Your task to perform on an android device: all mails in gmail Image 0: 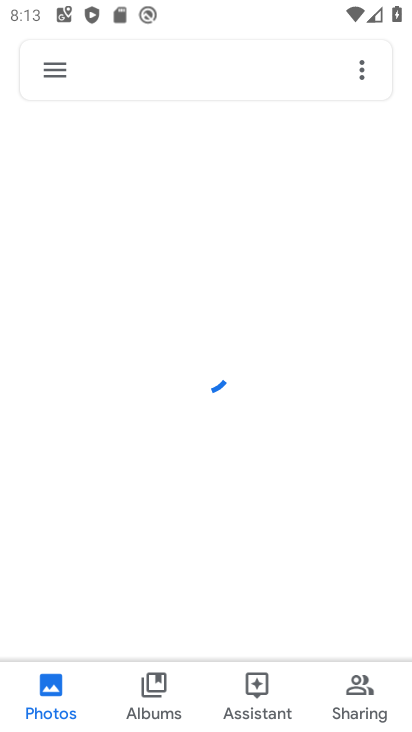
Step 0: press home button
Your task to perform on an android device: all mails in gmail Image 1: 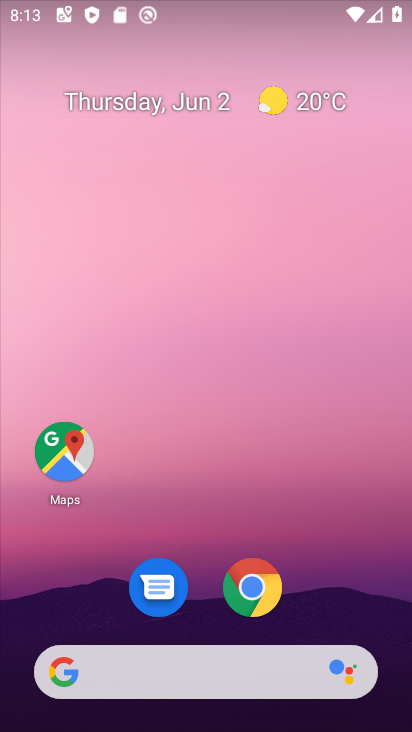
Step 1: drag from (204, 610) to (229, 122)
Your task to perform on an android device: all mails in gmail Image 2: 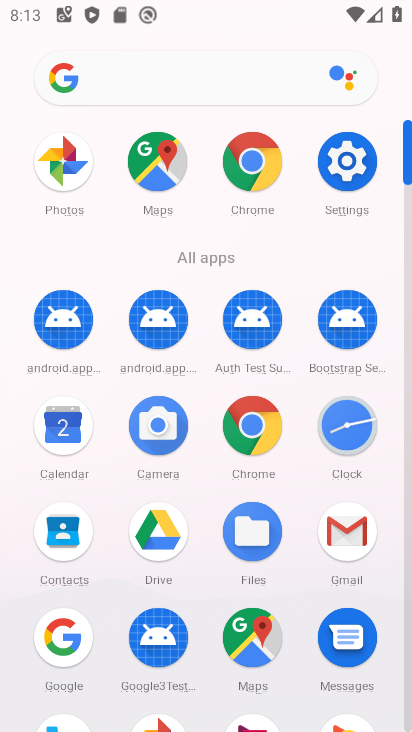
Step 2: click (338, 534)
Your task to perform on an android device: all mails in gmail Image 3: 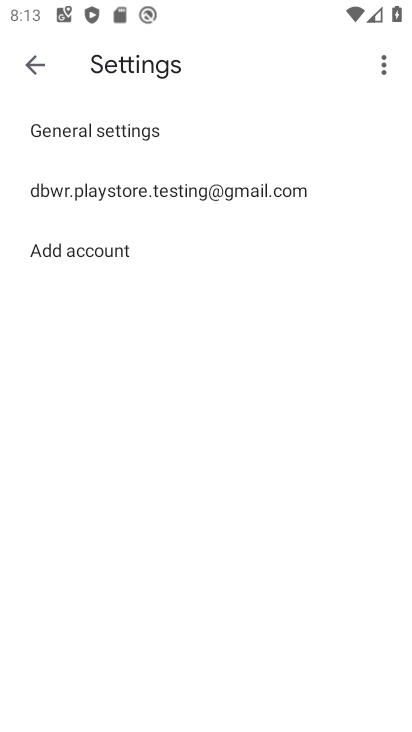
Step 3: click (42, 71)
Your task to perform on an android device: all mails in gmail Image 4: 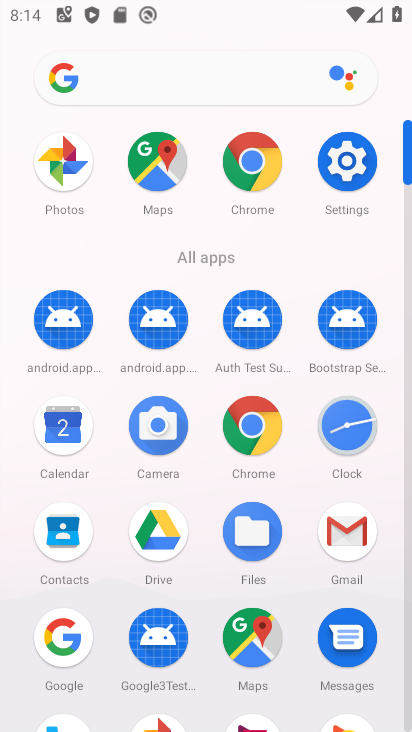
Step 4: click (337, 549)
Your task to perform on an android device: all mails in gmail Image 5: 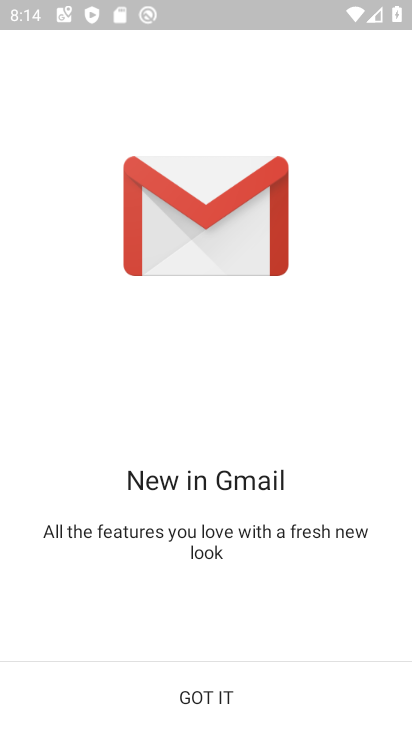
Step 5: click (192, 710)
Your task to perform on an android device: all mails in gmail Image 6: 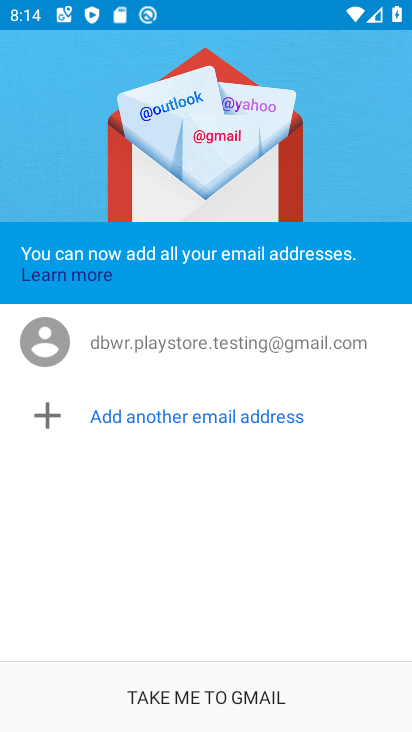
Step 6: click (192, 710)
Your task to perform on an android device: all mails in gmail Image 7: 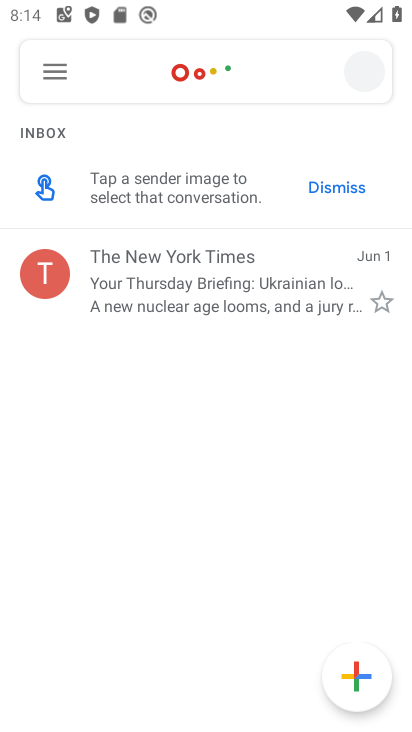
Step 7: click (49, 80)
Your task to perform on an android device: all mails in gmail Image 8: 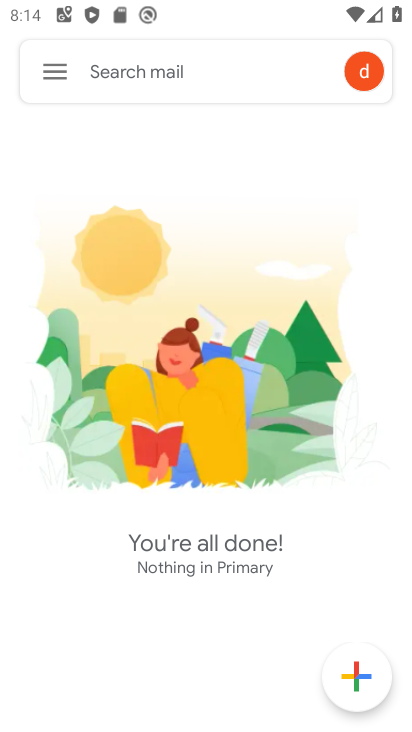
Step 8: click (56, 75)
Your task to perform on an android device: all mails in gmail Image 9: 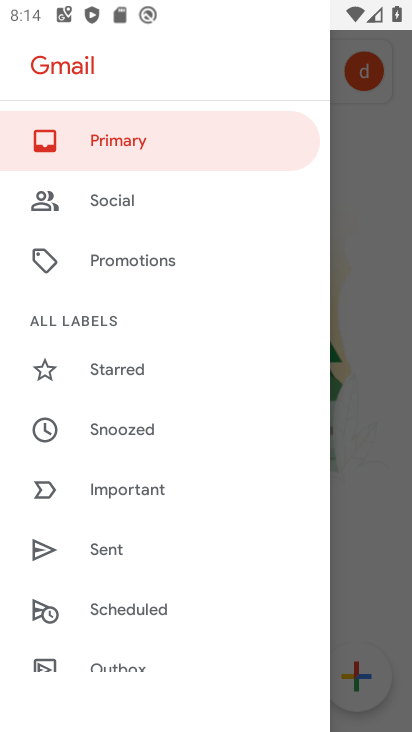
Step 9: drag from (99, 665) to (193, 95)
Your task to perform on an android device: all mails in gmail Image 10: 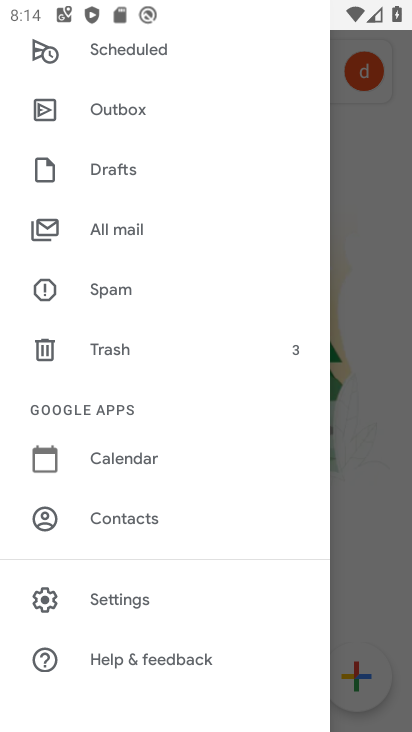
Step 10: click (127, 239)
Your task to perform on an android device: all mails in gmail Image 11: 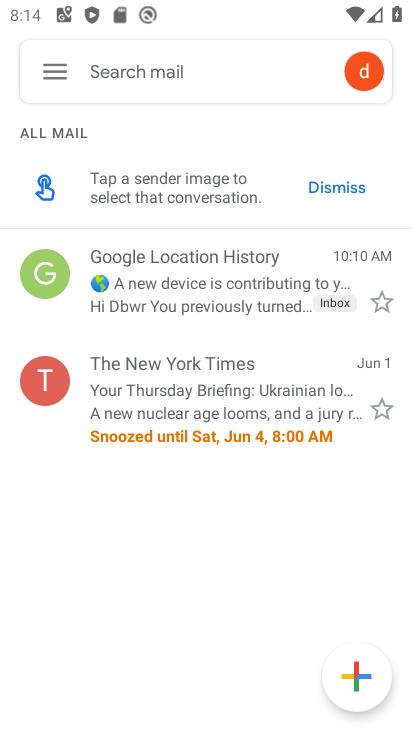
Step 11: task complete